Your task to perform on an android device: Open calendar and show me the fourth week of next month Image 0: 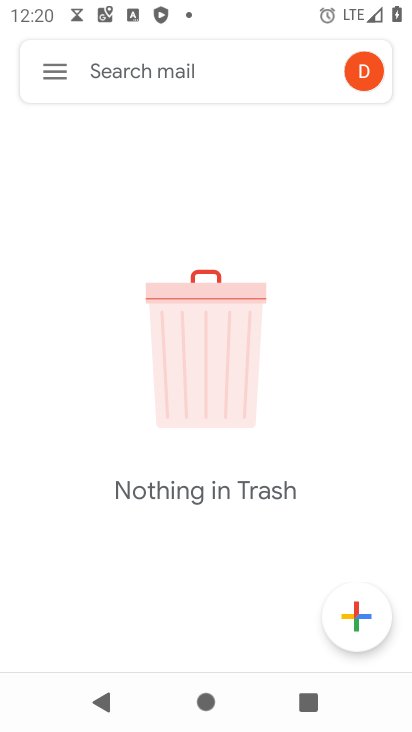
Step 0: press home button
Your task to perform on an android device: Open calendar and show me the fourth week of next month Image 1: 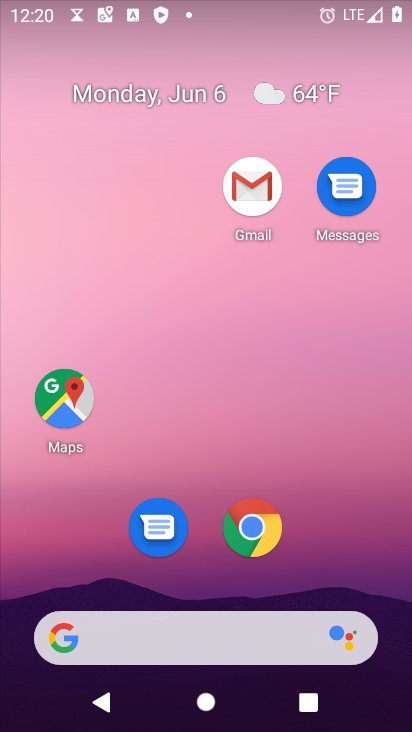
Step 1: click (125, 96)
Your task to perform on an android device: Open calendar and show me the fourth week of next month Image 2: 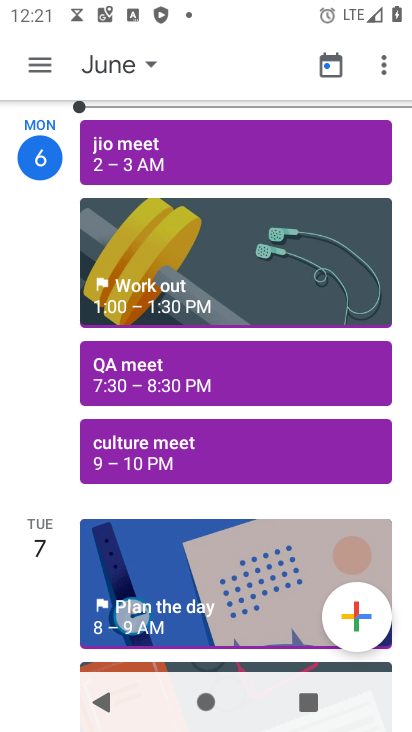
Step 2: click (46, 66)
Your task to perform on an android device: Open calendar and show me the fourth week of next month Image 3: 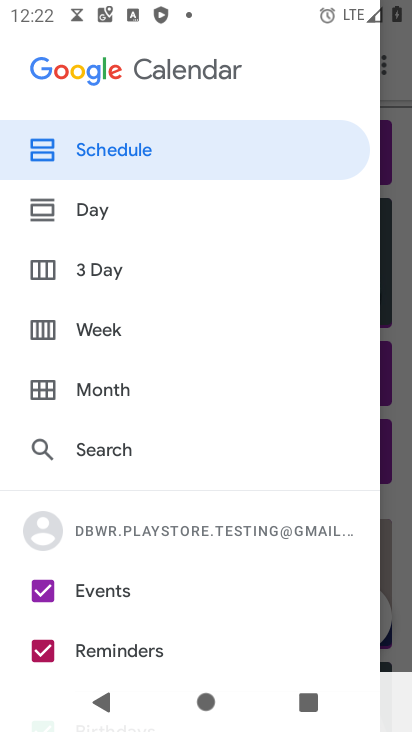
Step 3: click (96, 337)
Your task to perform on an android device: Open calendar and show me the fourth week of next month Image 4: 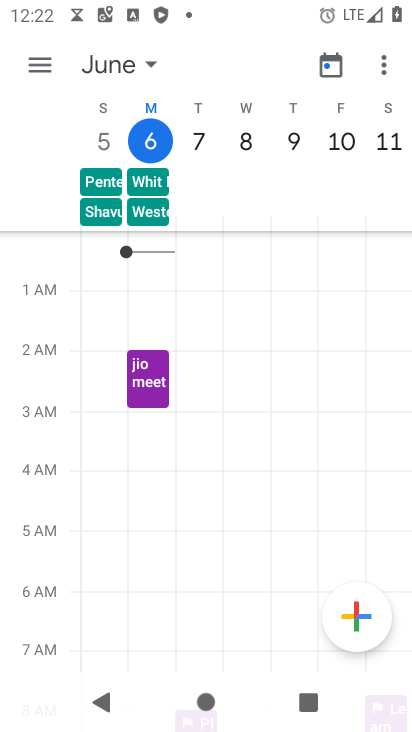
Step 4: click (158, 64)
Your task to perform on an android device: Open calendar and show me the fourth week of next month Image 5: 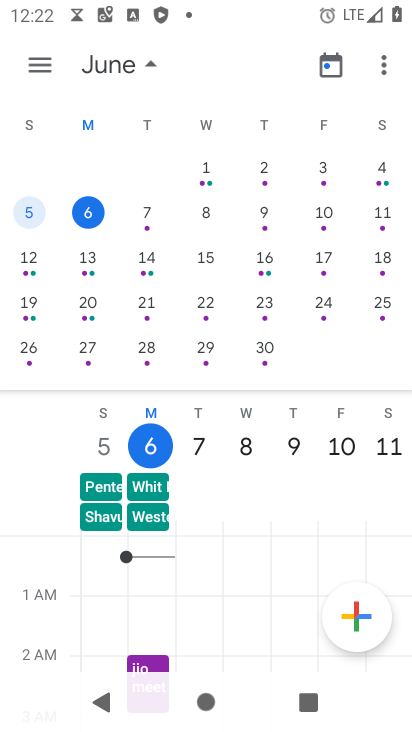
Step 5: drag from (360, 337) to (10, 262)
Your task to perform on an android device: Open calendar and show me the fourth week of next month Image 6: 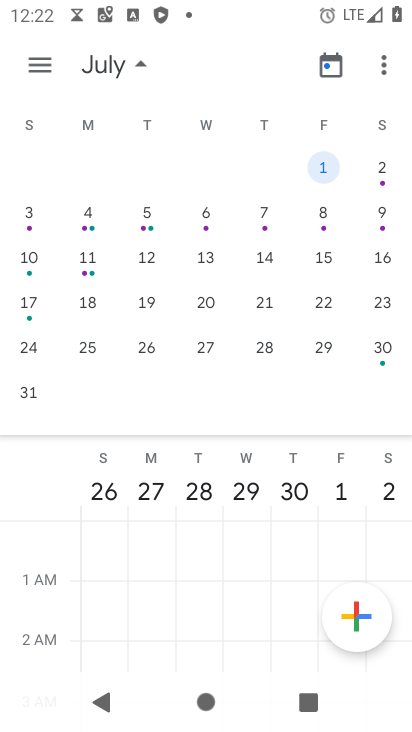
Step 6: click (264, 305)
Your task to perform on an android device: Open calendar and show me the fourth week of next month Image 7: 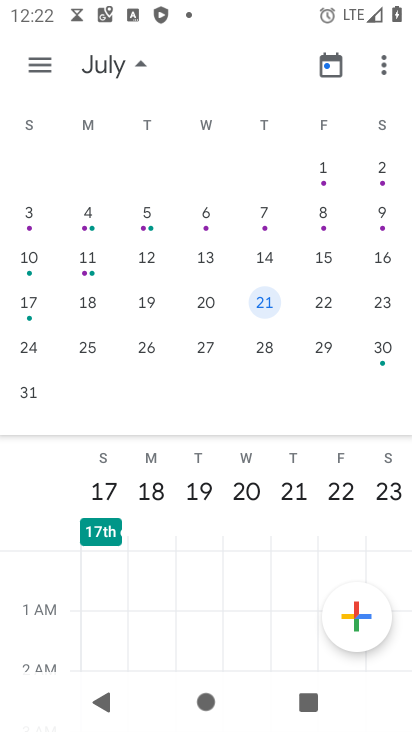
Step 7: task complete